Your task to perform on an android device: find snoozed emails in the gmail app Image 0: 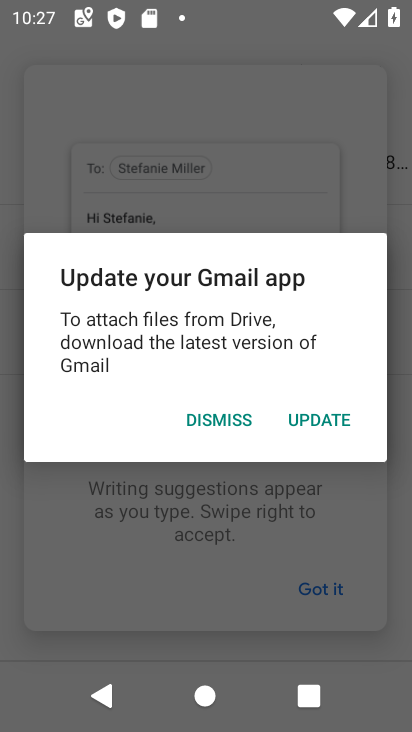
Step 0: press home button
Your task to perform on an android device: find snoozed emails in the gmail app Image 1: 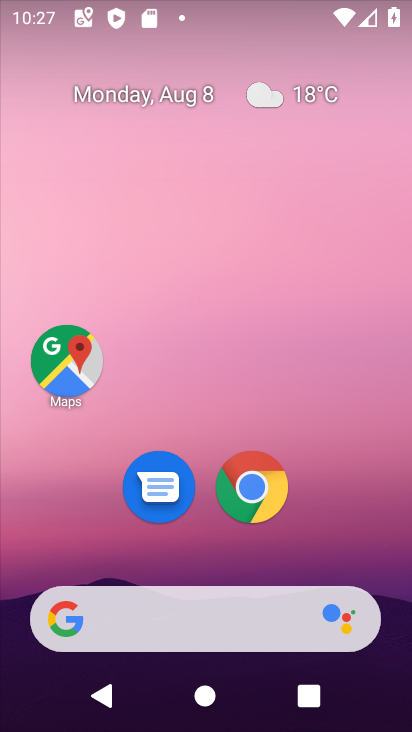
Step 1: drag from (210, 572) to (204, 68)
Your task to perform on an android device: find snoozed emails in the gmail app Image 2: 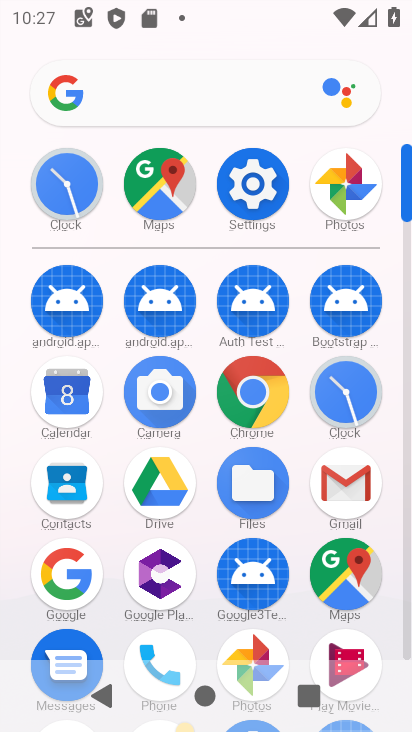
Step 2: click (352, 476)
Your task to perform on an android device: find snoozed emails in the gmail app Image 3: 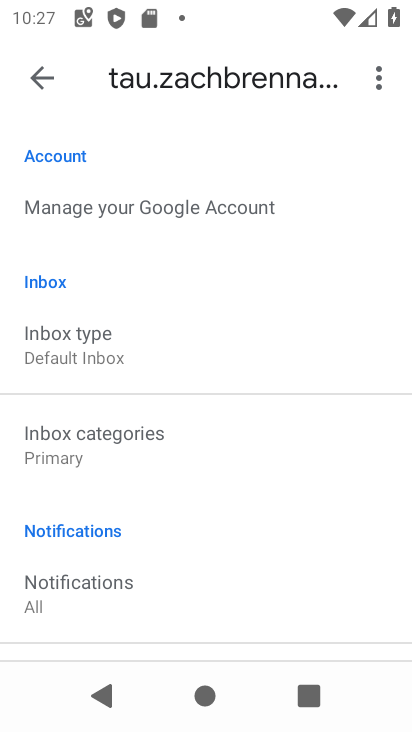
Step 3: click (46, 78)
Your task to perform on an android device: find snoozed emails in the gmail app Image 4: 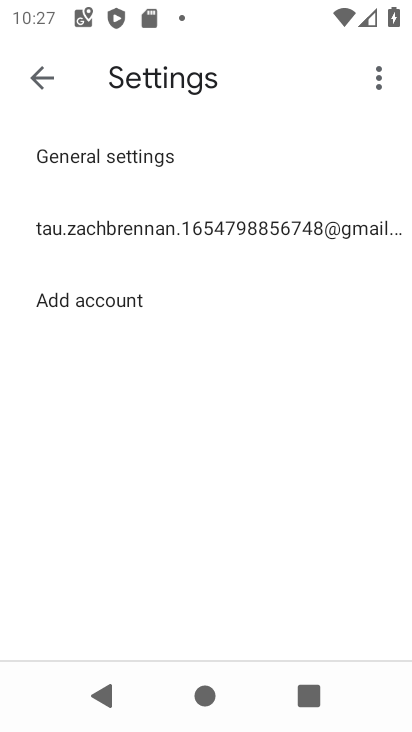
Step 4: click (46, 78)
Your task to perform on an android device: find snoozed emails in the gmail app Image 5: 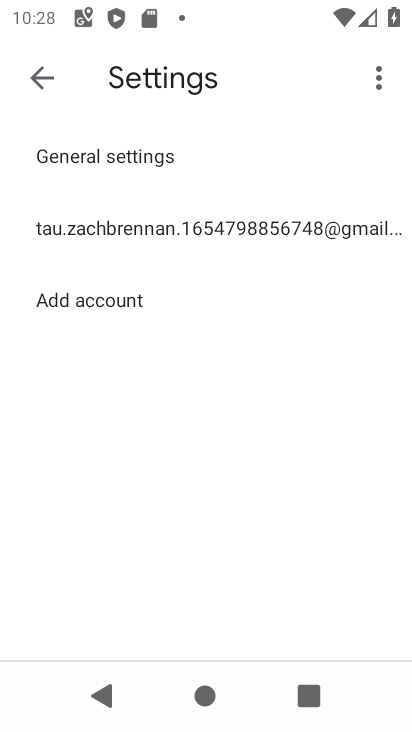
Step 5: click (42, 76)
Your task to perform on an android device: find snoozed emails in the gmail app Image 6: 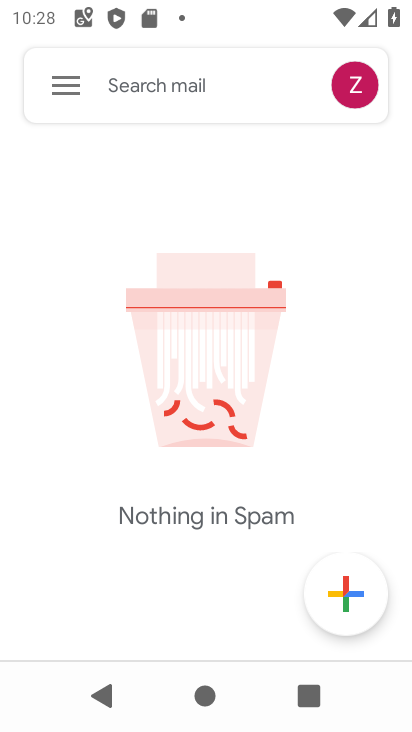
Step 6: click (54, 82)
Your task to perform on an android device: find snoozed emails in the gmail app Image 7: 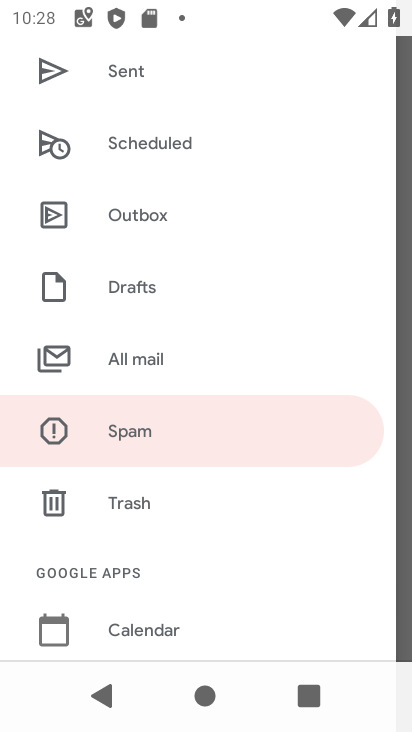
Step 7: drag from (147, 193) to (141, 459)
Your task to perform on an android device: find snoozed emails in the gmail app Image 8: 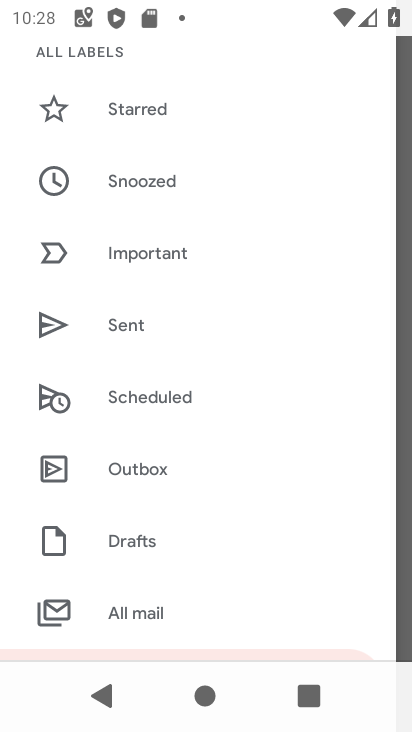
Step 8: click (152, 179)
Your task to perform on an android device: find snoozed emails in the gmail app Image 9: 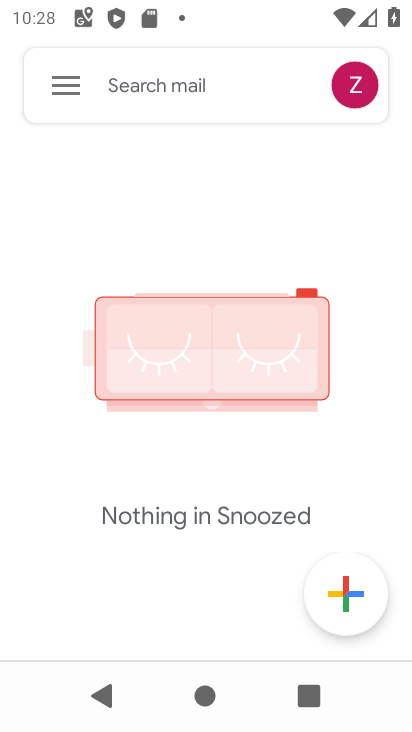
Step 9: task complete